Your task to perform on an android device: Open Google Chrome and click the shortcut for Amazon.com Image 0: 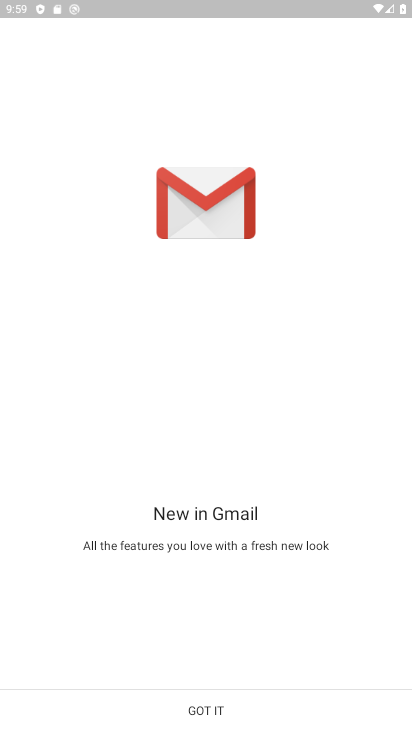
Step 0: press home button
Your task to perform on an android device: Open Google Chrome and click the shortcut for Amazon.com Image 1: 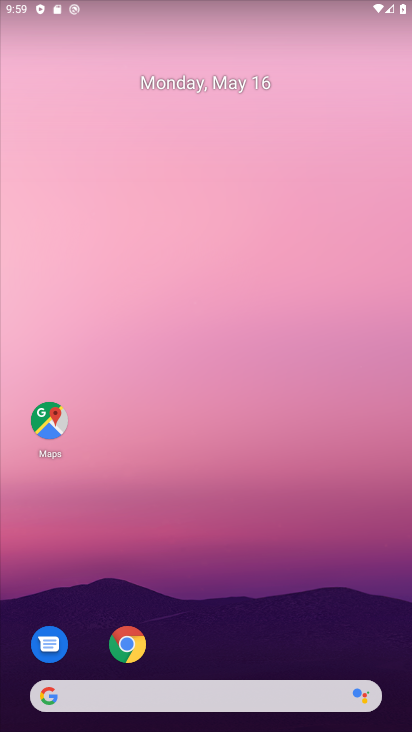
Step 1: click (120, 658)
Your task to perform on an android device: Open Google Chrome and click the shortcut for Amazon.com Image 2: 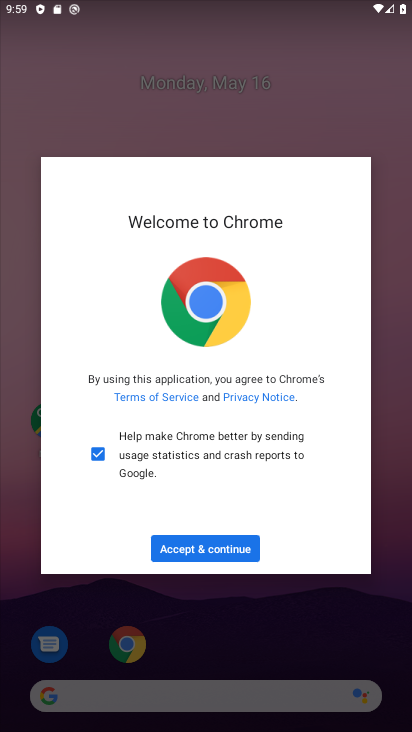
Step 2: click (187, 554)
Your task to perform on an android device: Open Google Chrome and click the shortcut for Amazon.com Image 3: 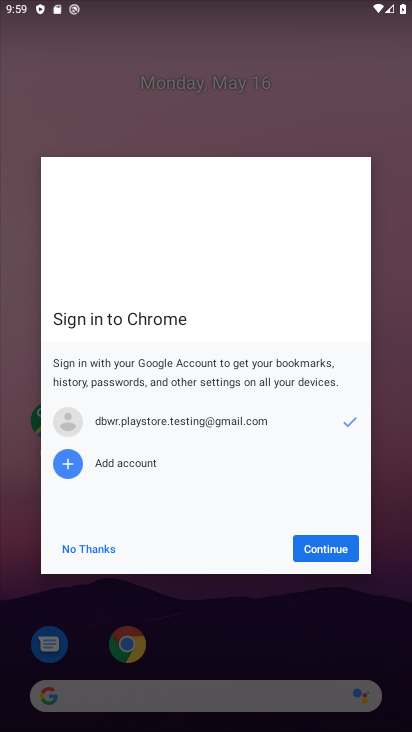
Step 3: click (348, 551)
Your task to perform on an android device: Open Google Chrome and click the shortcut for Amazon.com Image 4: 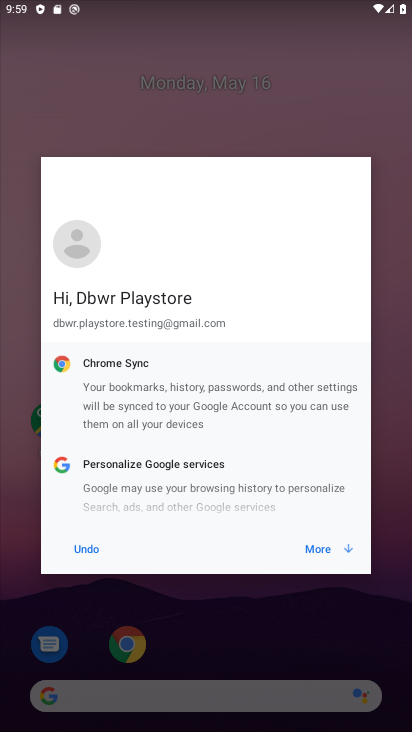
Step 4: click (348, 551)
Your task to perform on an android device: Open Google Chrome and click the shortcut for Amazon.com Image 5: 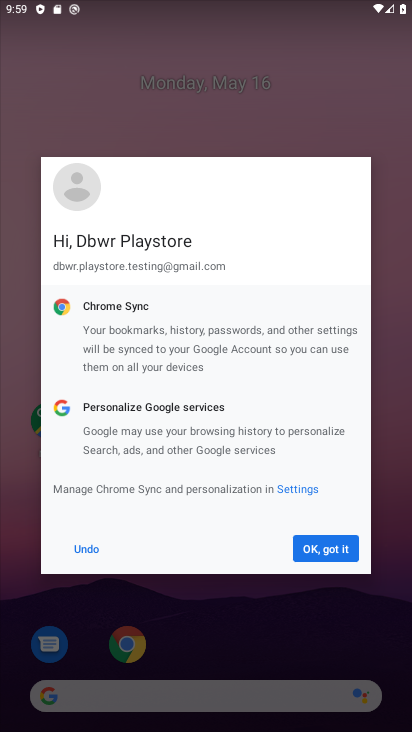
Step 5: click (348, 551)
Your task to perform on an android device: Open Google Chrome and click the shortcut for Amazon.com Image 6: 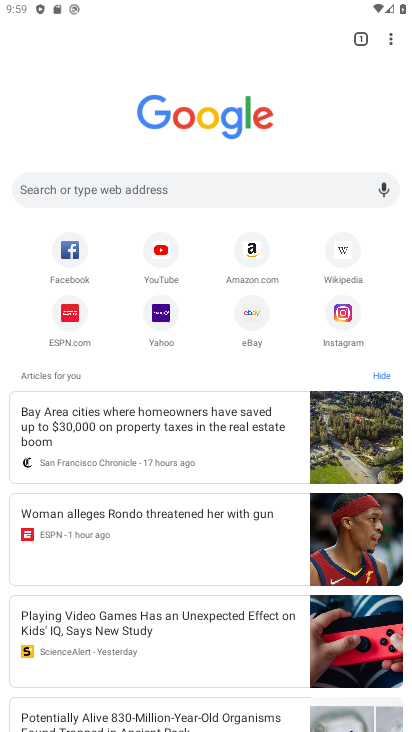
Step 6: click (264, 260)
Your task to perform on an android device: Open Google Chrome and click the shortcut for Amazon.com Image 7: 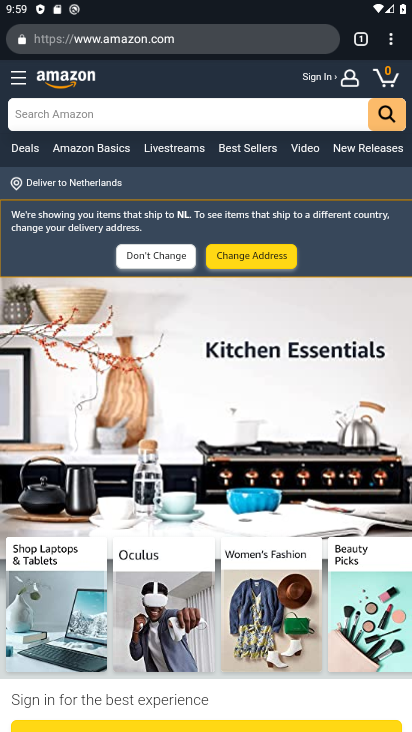
Step 7: task complete